Your task to perform on an android device: toggle priority inbox in the gmail app Image 0: 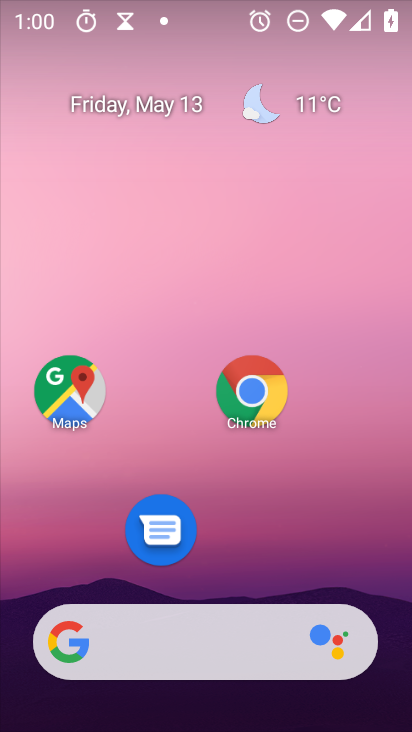
Step 0: press home button
Your task to perform on an android device: toggle priority inbox in the gmail app Image 1: 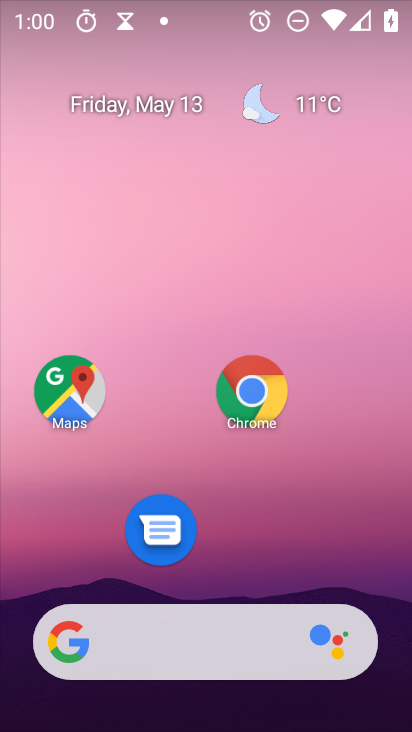
Step 1: drag from (159, 656) to (280, 171)
Your task to perform on an android device: toggle priority inbox in the gmail app Image 2: 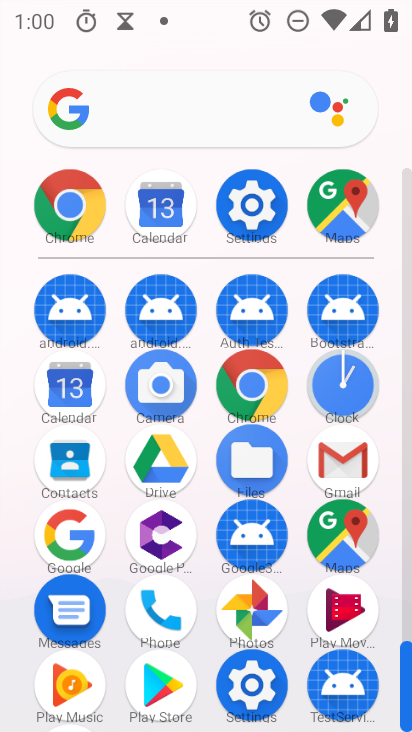
Step 2: click (347, 467)
Your task to perform on an android device: toggle priority inbox in the gmail app Image 3: 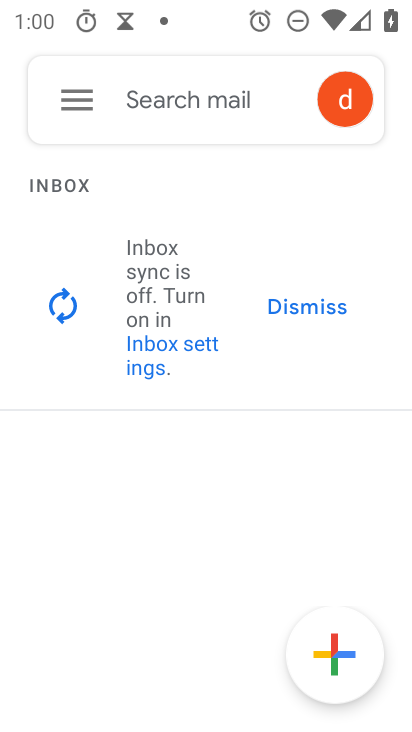
Step 3: click (91, 95)
Your task to perform on an android device: toggle priority inbox in the gmail app Image 4: 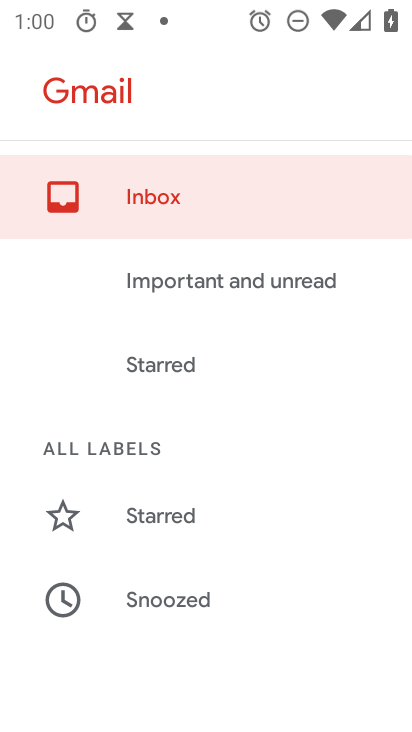
Step 4: drag from (229, 649) to (335, 166)
Your task to perform on an android device: toggle priority inbox in the gmail app Image 5: 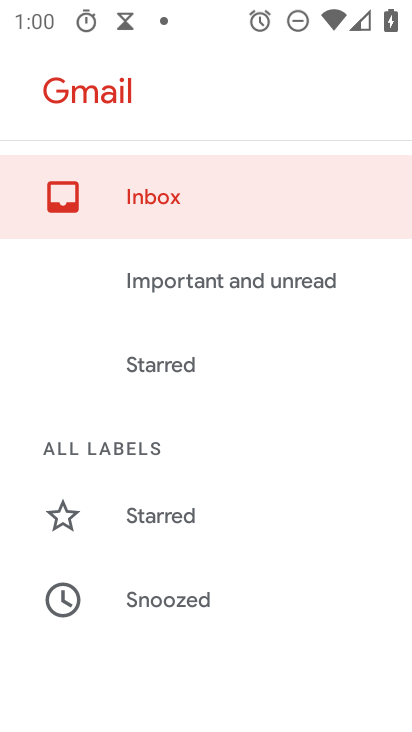
Step 5: drag from (175, 564) to (297, 117)
Your task to perform on an android device: toggle priority inbox in the gmail app Image 6: 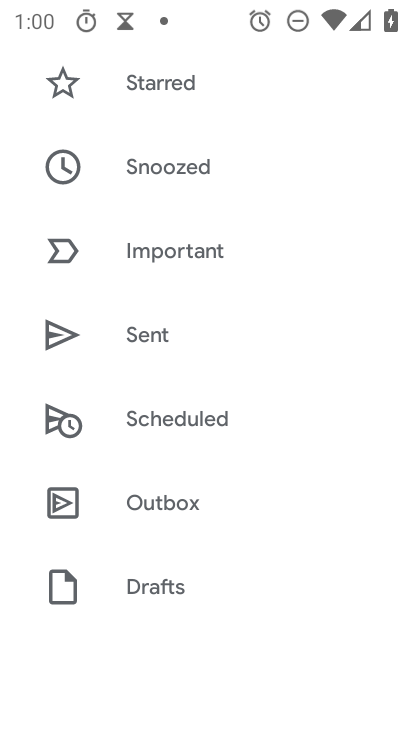
Step 6: drag from (214, 613) to (308, 171)
Your task to perform on an android device: toggle priority inbox in the gmail app Image 7: 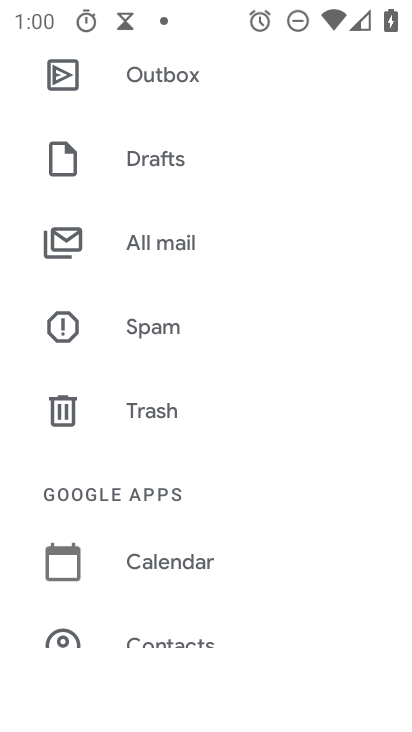
Step 7: drag from (237, 601) to (333, 84)
Your task to perform on an android device: toggle priority inbox in the gmail app Image 8: 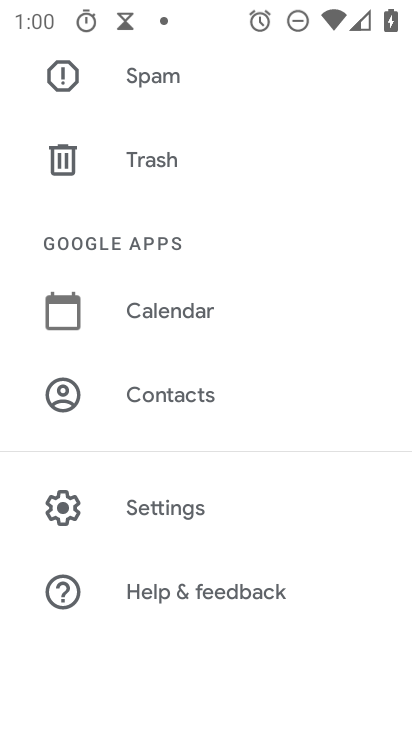
Step 8: click (179, 514)
Your task to perform on an android device: toggle priority inbox in the gmail app Image 9: 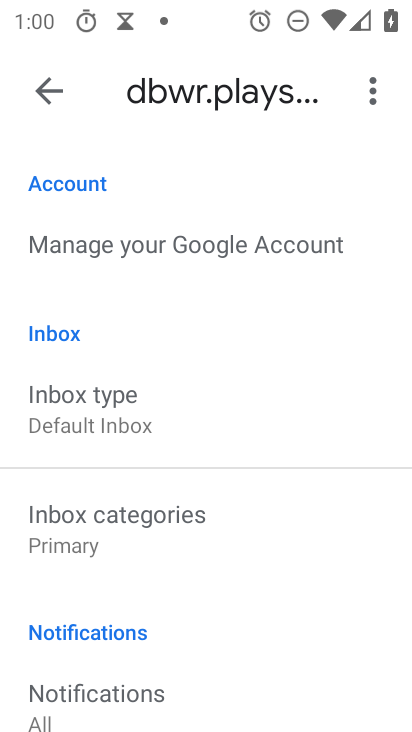
Step 9: click (82, 402)
Your task to perform on an android device: toggle priority inbox in the gmail app Image 10: 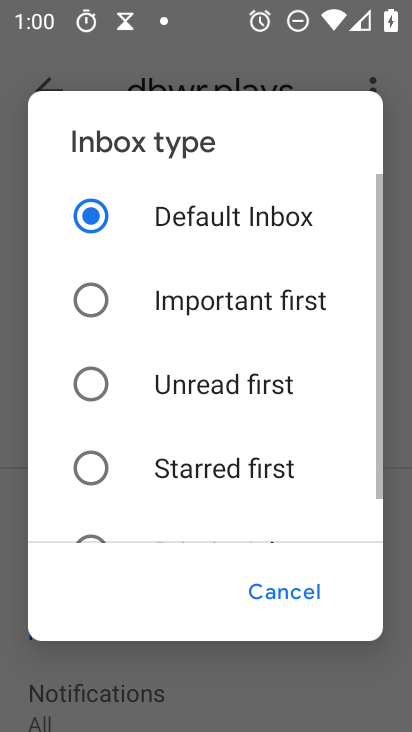
Step 10: drag from (127, 525) to (210, 180)
Your task to perform on an android device: toggle priority inbox in the gmail app Image 11: 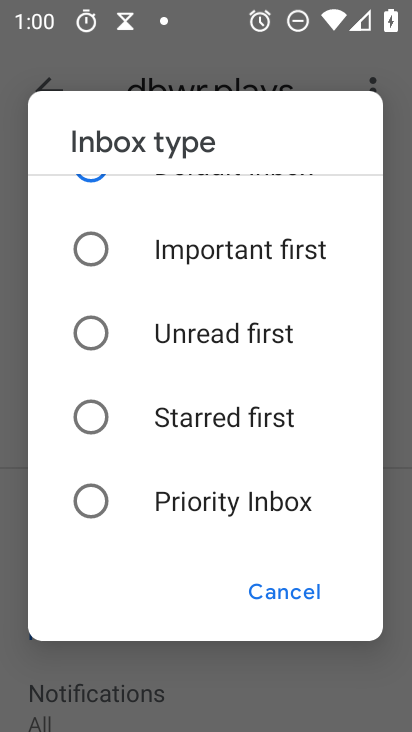
Step 11: click (95, 503)
Your task to perform on an android device: toggle priority inbox in the gmail app Image 12: 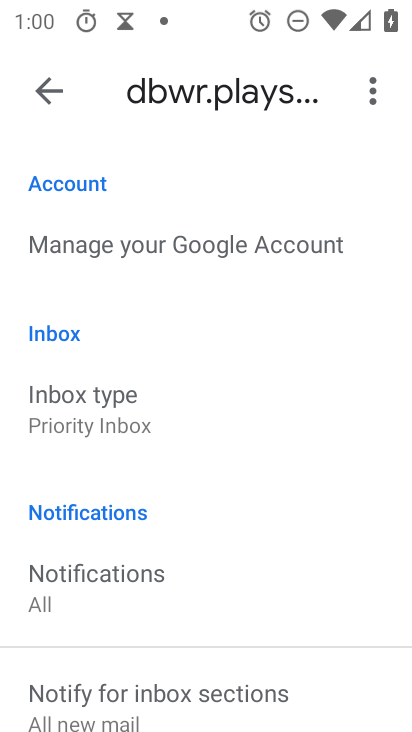
Step 12: task complete